Your task to perform on an android device: Go to notification settings Image 0: 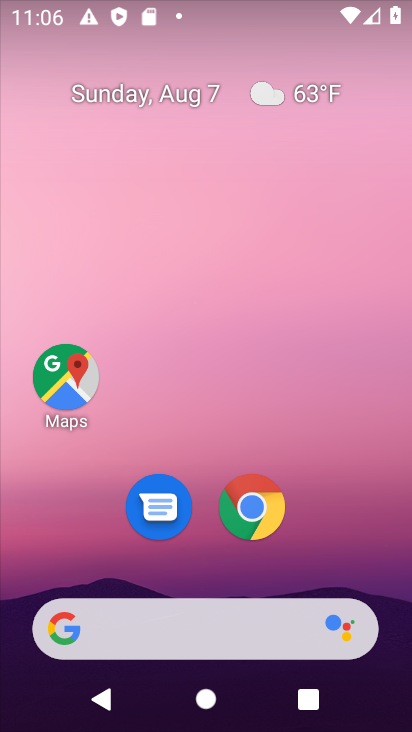
Step 0: drag from (353, 557) to (299, 246)
Your task to perform on an android device: Go to notification settings Image 1: 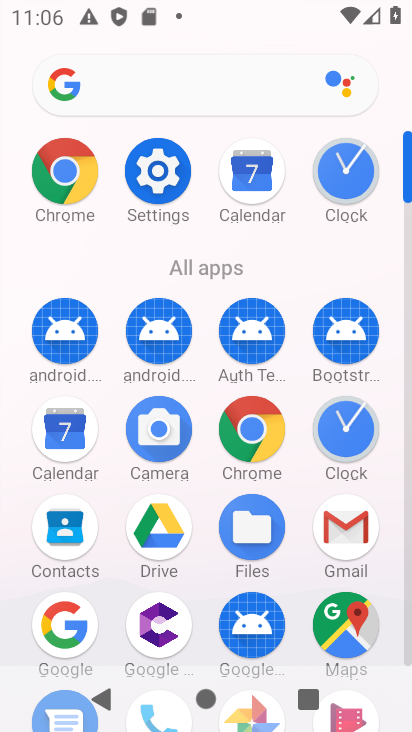
Step 1: drag from (288, 291) to (259, 92)
Your task to perform on an android device: Go to notification settings Image 2: 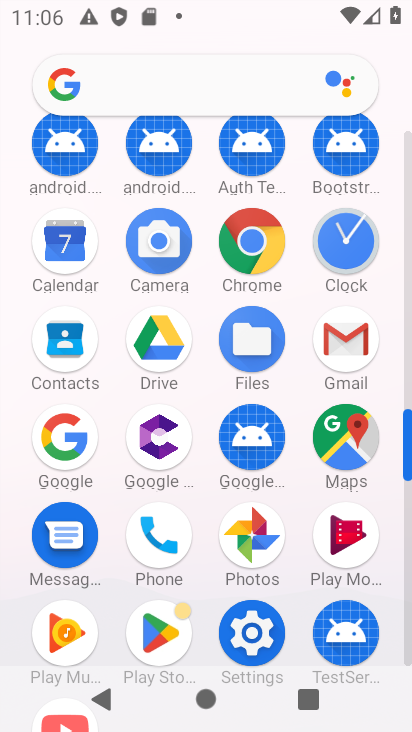
Step 2: click (264, 615)
Your task to perform on an android device: Go to notification settings Image 3: 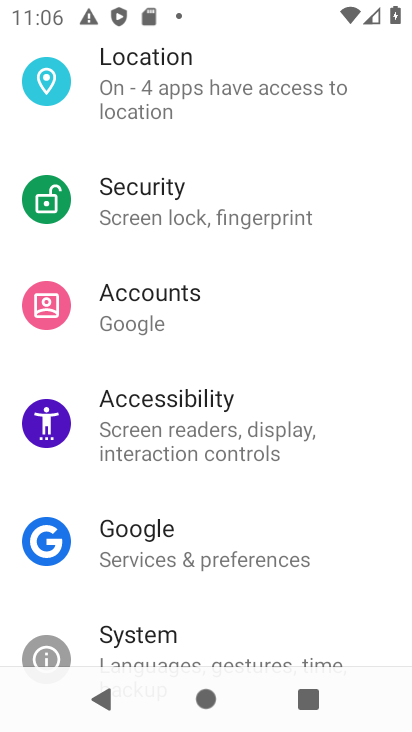
Step 3: drag from (287, 594) to (257, 372)
Your task to perform on an android device: Go to notification settings Image 4: 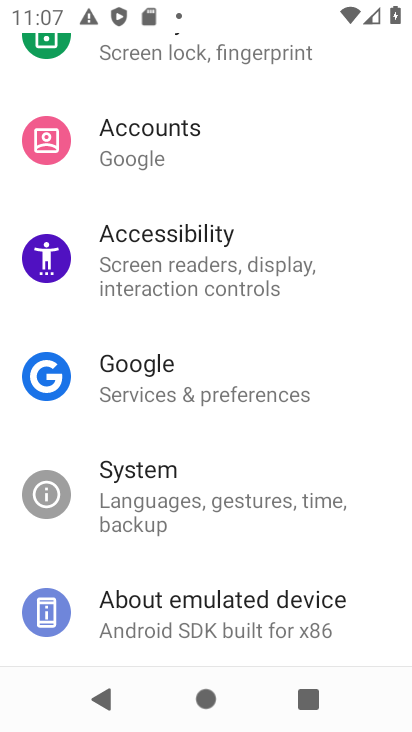
Step 4: drag from (207, 386) to (247, 695)
Your task to perform on an android device: Go to notification settings Image 5: 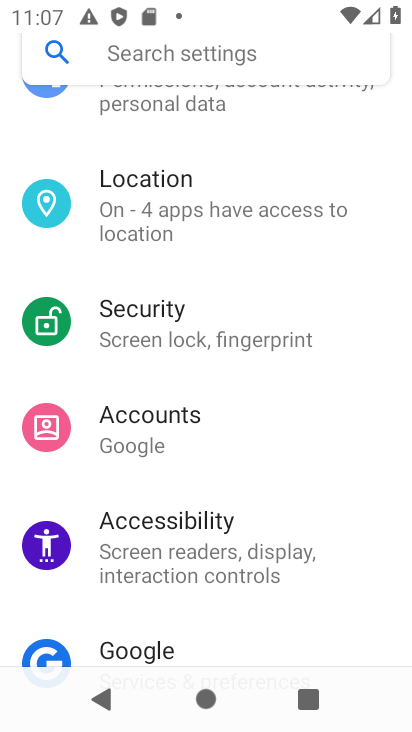
Step 5: drag from (218, 148) to (281, 708)
Your task to perform on an android device: Go to notification settings Image 6: 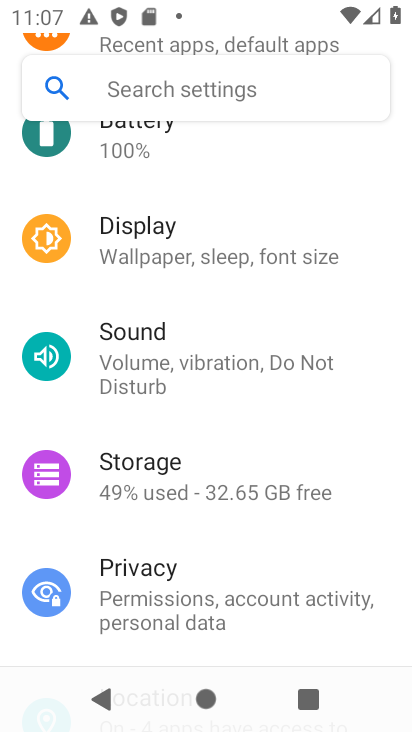
Step 6: drag from (260, 167) to (232, 538)
Your task to perform on an android device: Go to notification settings Image 7: 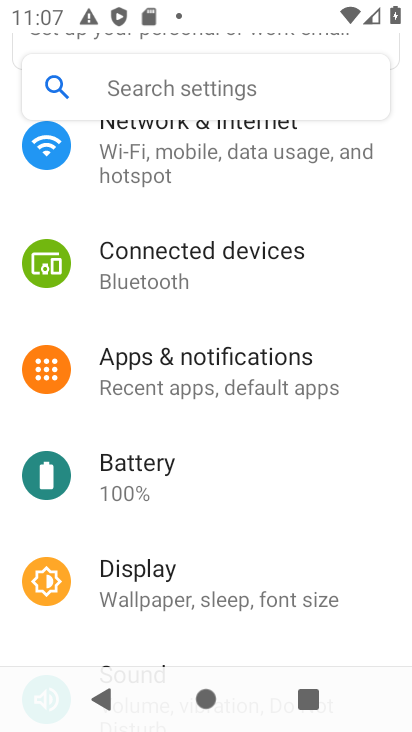
Step 7: click (158, 392)
Your task to perform on an android device: Go to notification settings Image 8: 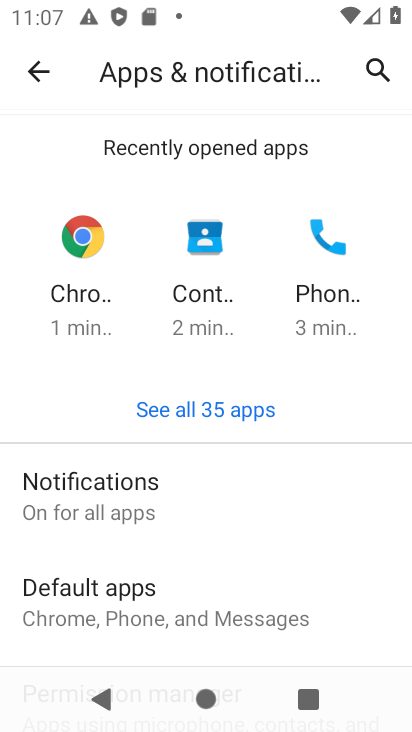
Step 8: click (205, 497)
Your task to perform on an android device: Go to notification settings Image 9: 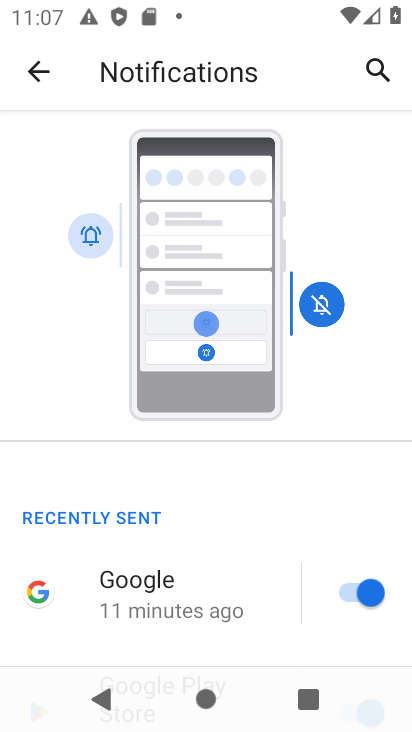
Step 9: task complete